Your task to perform on an android device: see creations saved in the google photos Image 0: 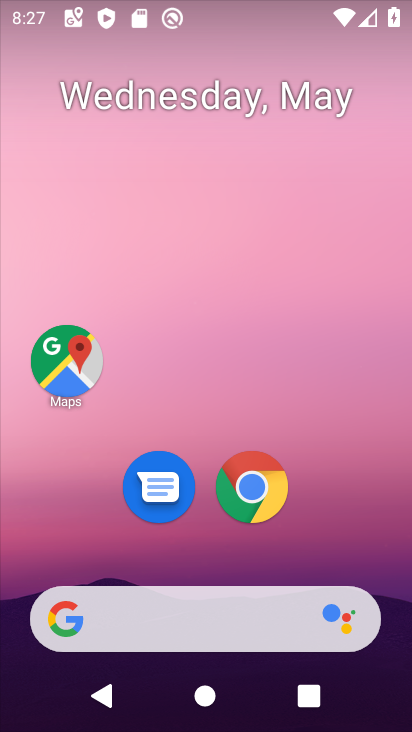
Step 0: drag from (335, 496) to (261, 23)
Your task to perform on an android device: see creations saved in the google photos Image 1: 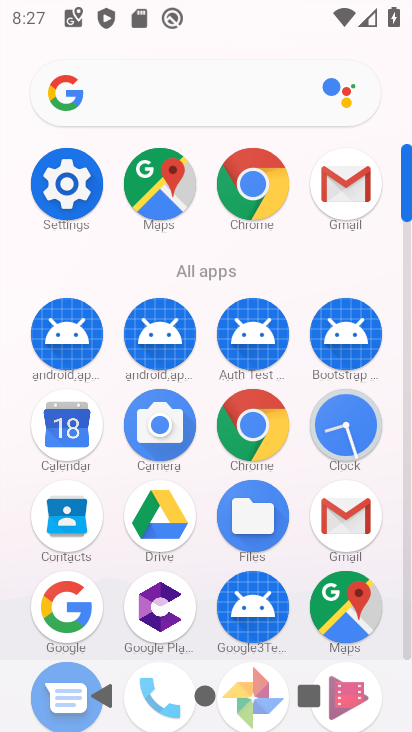
Step 1: click (166, 216)
Your task to perform on an android device: see creations saved in the google photos Image 2: 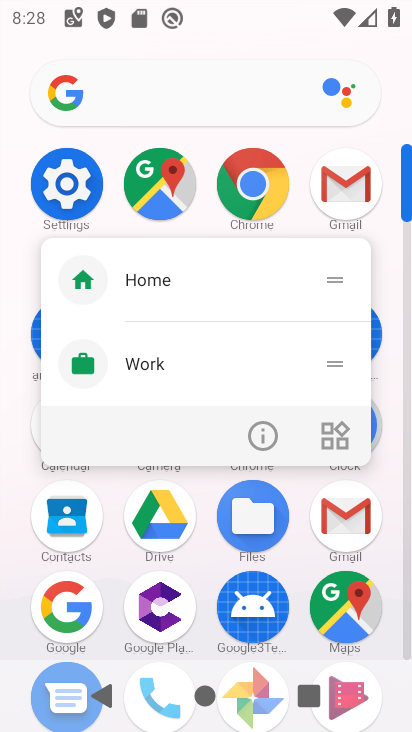
Step 2: click (214, 550)
Your task to perform on an android device: see creations saved in the google photos Image 3: 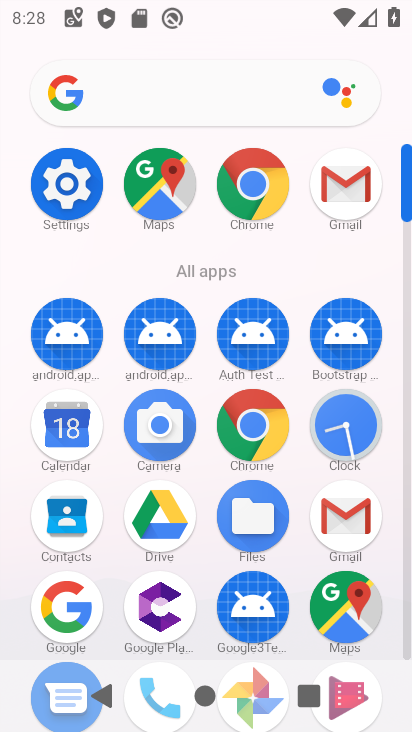
Step 3: drag from (211, 550) to (195, 240)
Your task to perform on an android device: see creations saved in the google photos Image 4: 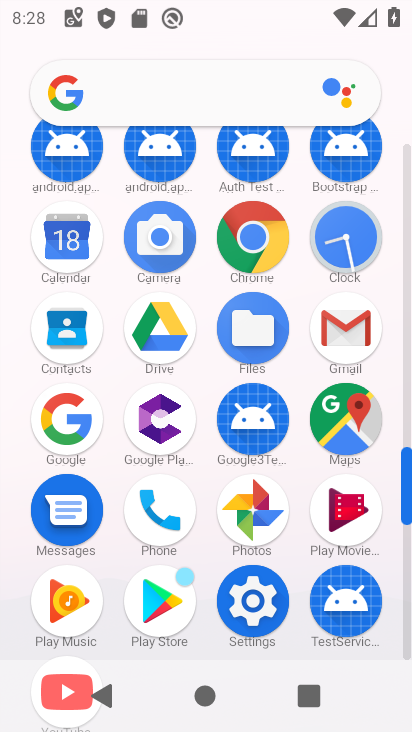
Step 4: click (251, 513)
Your task to perform on an android device: see creations saved in the google photos Image 5: 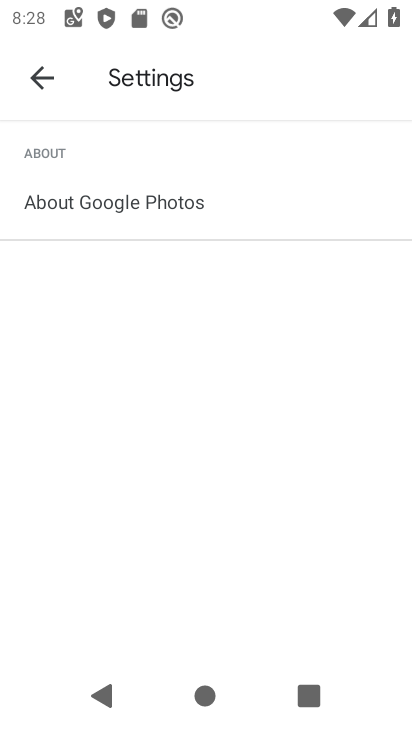
Step 5: click (39, 75)
Your task to perform on an android device: see creations saved in the google photos Image 6: 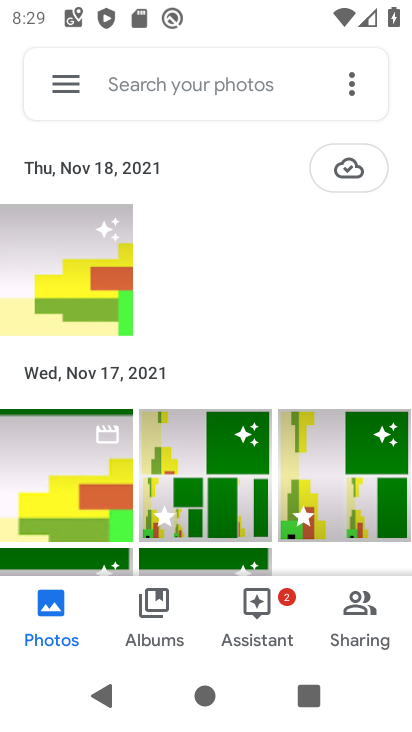
Step 6: click (162, 82)
Your task to perform on an android device: see creations saved in the google photos Image 7: 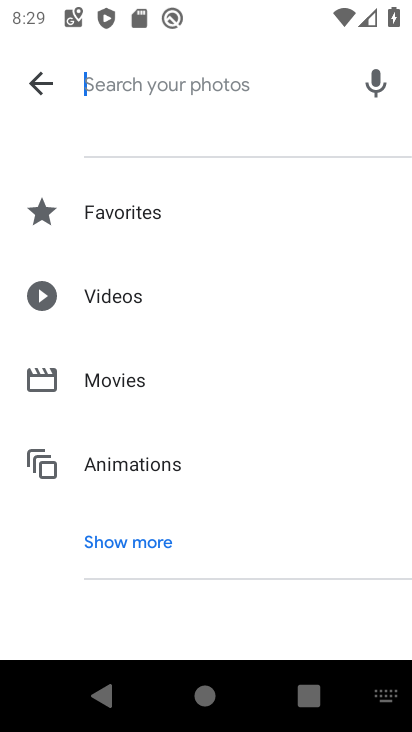
Step 7: click (117, 543)
Your task to perform on an android device: see creations saved in the google photos Image 8: 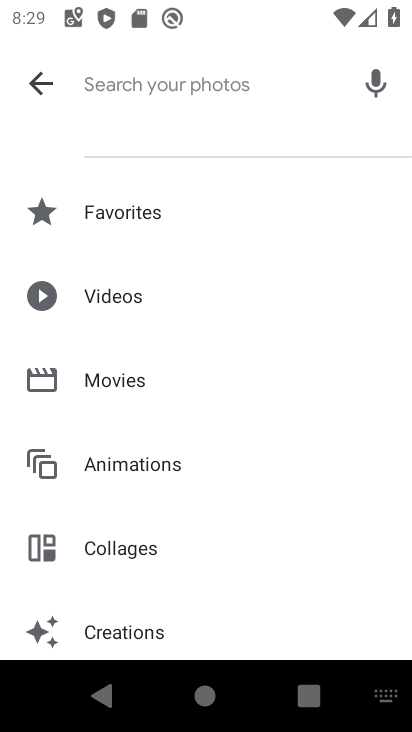
Step 8: click (105, 627)
Your task to perform on an android device: see creations saved in the google photos Image 9: 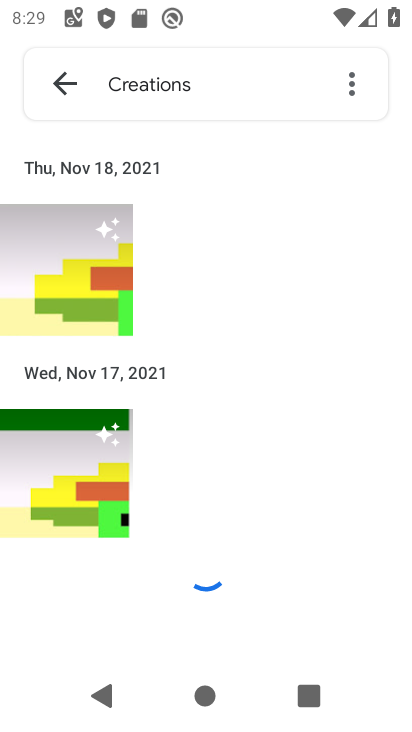
Step 9: task complete